Your task to perform on an android device: Go to network settings Image 0: 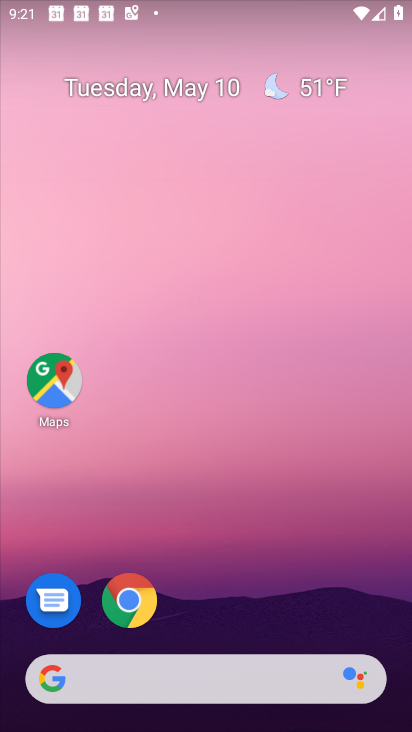
Step 0: drag from (217, 613) to (207, 173)
Your task to perform on an android device: Go to network settings Image 1: 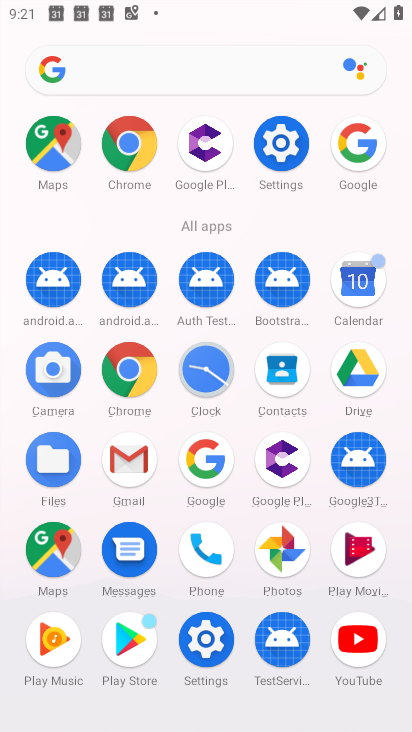
Step 1: click (268, 140)
Your task to perform on an android device: Go to network settings Image 2: 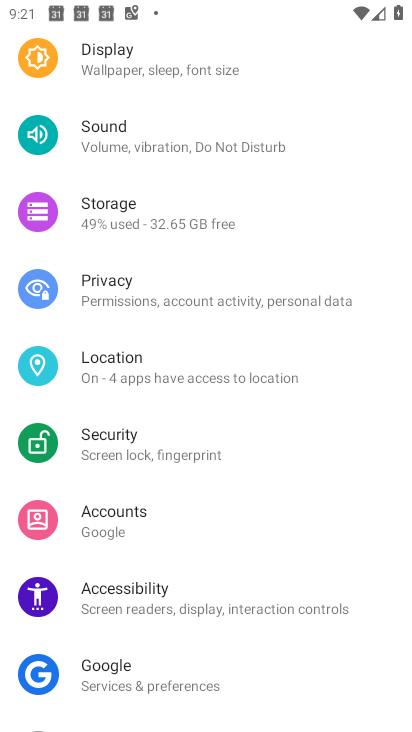
Step 2: drag from (231, 124) to (217, 411)
Your task to perform on an android device: Go to network settings Image 3: 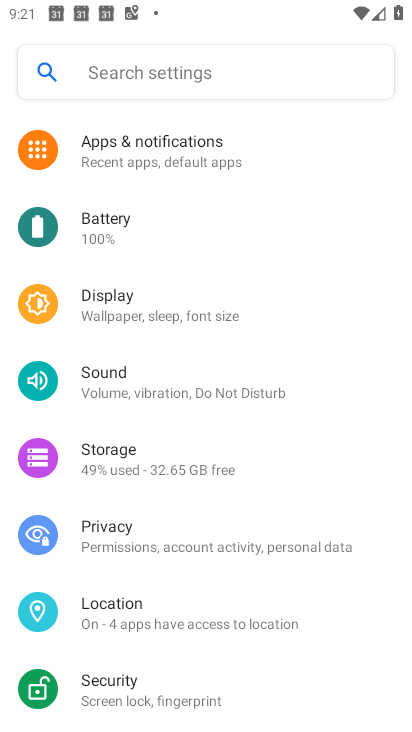
Step 3: drag from (180, 135) to (194, 417)
Your task to perform on an android device: Go to network settings Image 4: 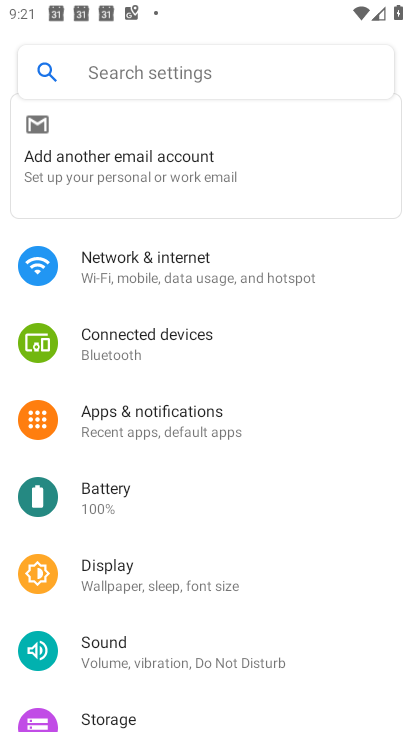
Step 4: click (196, 267)
Your task to perform on an android device: Go to network settings Image 5: 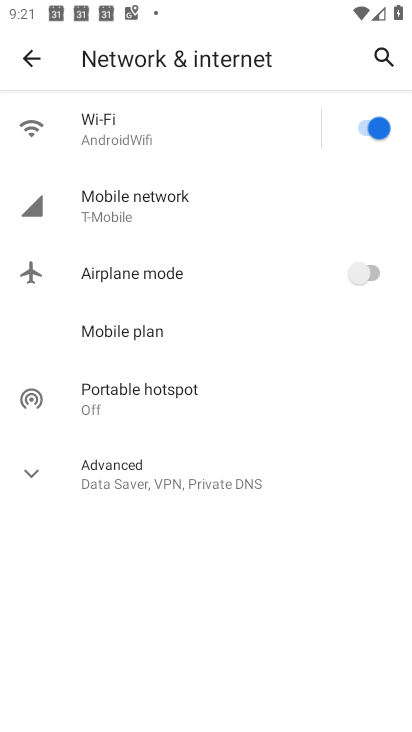
Step 5: task complete